Your task to perform on an android device: choose inbox layout in the gmail app Image 0: 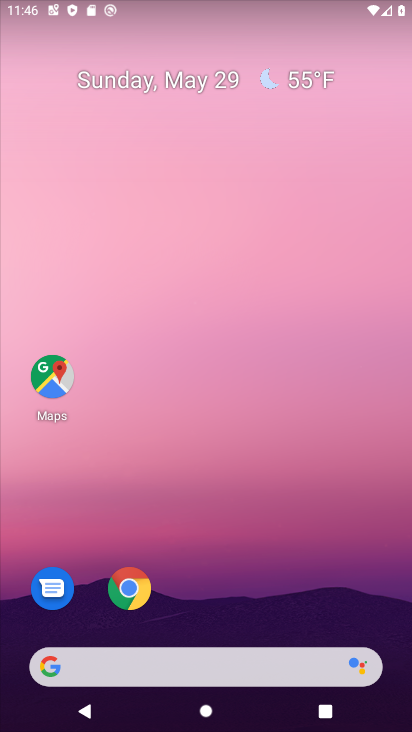
Step 0: drag from (291, 592) to (330, 0)
Your task to perform on an android device: choose inbox layout in the gmail app Image 1: 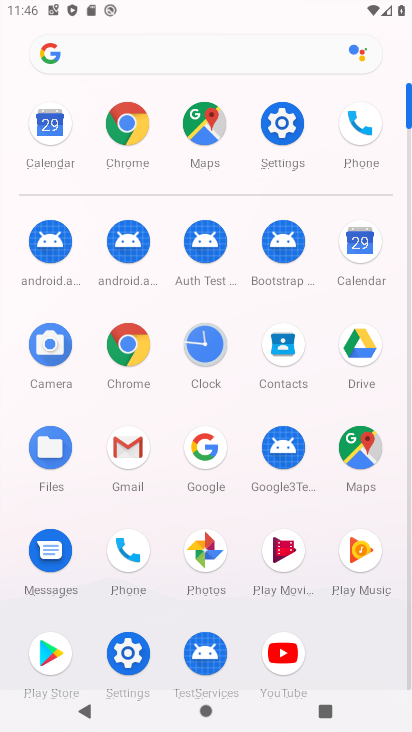
Step 1: click (130, 453)
Your task to perform on an android device: choose inbox layout in the gmail app Image 2: 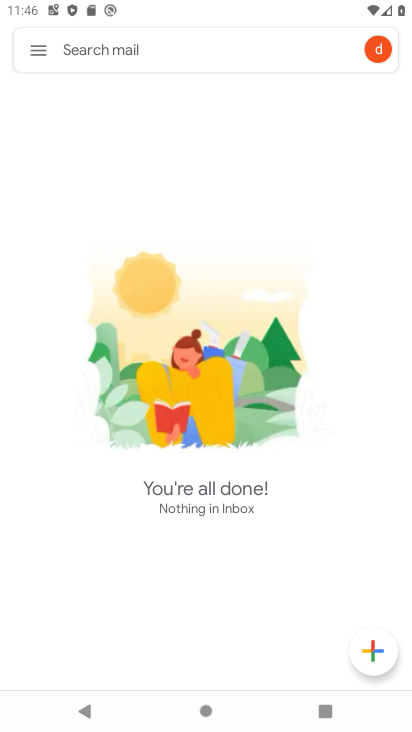
Step 2: click (16, 51)
Your task to perform on an android device: choose inbox layout in the gmail app Image 3: 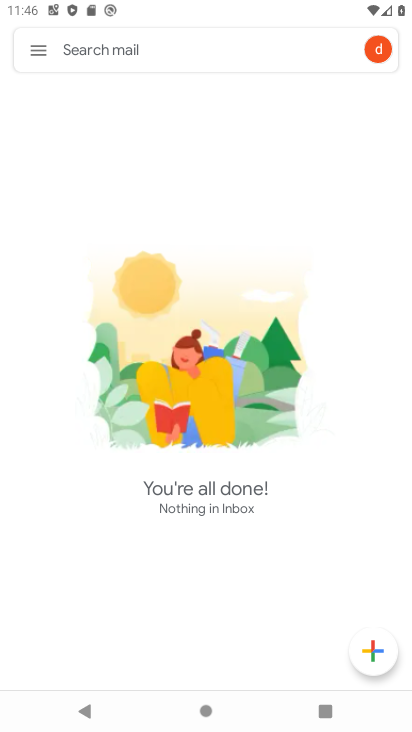
Step 3: click (16, 50)
Your task to perform on an android device: choose inbox layout in the gmail app Image 4: 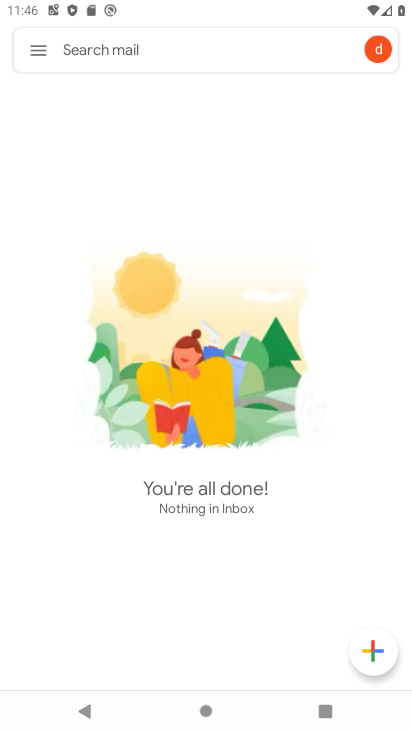
Step 4: click (32, 55)
Your task to perform on an android device: choose inbox layout in the gmail app Image 5: 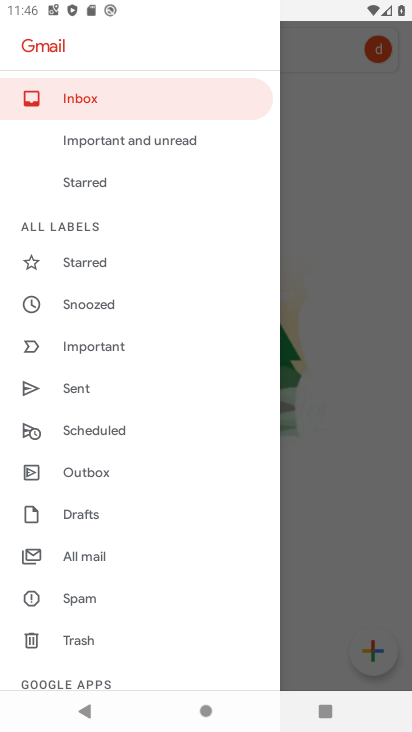
Step 5: drag from (123, 587) to (168, 183)
Your task to perform on an android device: choose inbox layout in the gmail app Image 6: 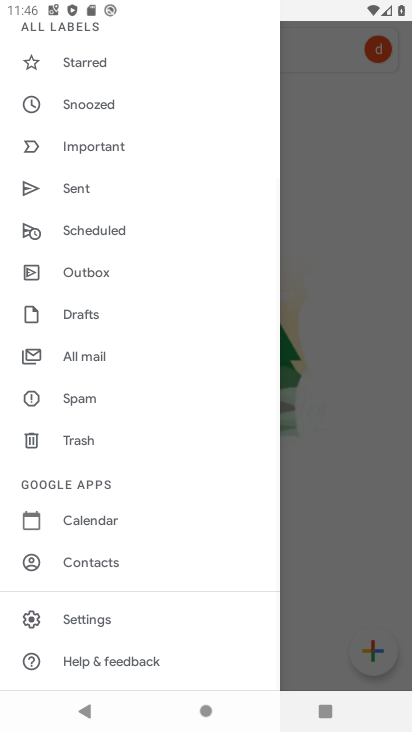
Step 6: click (85, 610)
Your task to perform on an android device: choose inbox layout in the gmail app Image 7: 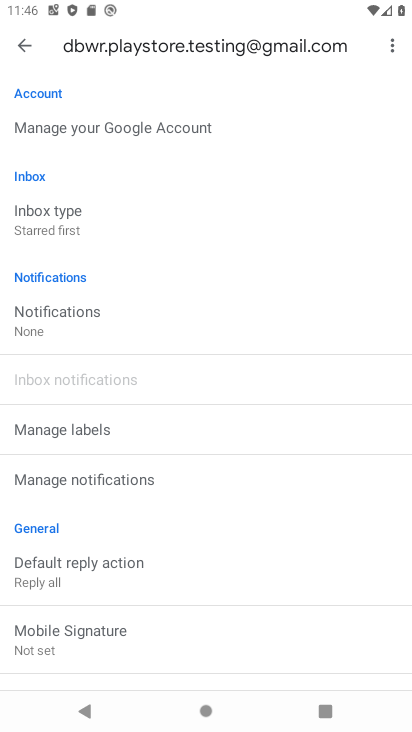
Step 7: click (83, 224)
Your task to perform on an android device: choose inbox layout in the gmail app Image 8: 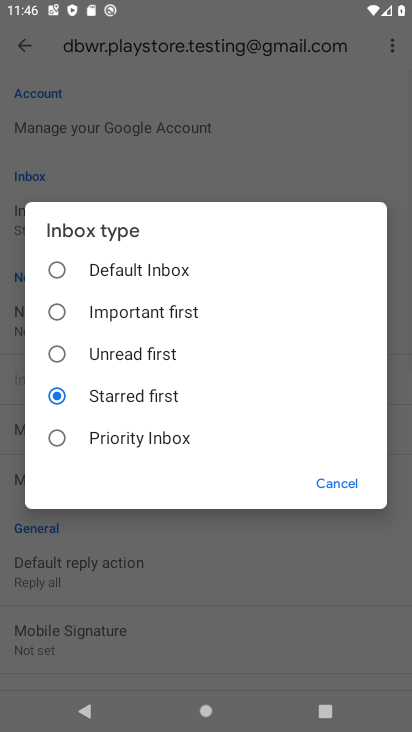
Step 8: click (83, 352)
Your task to perform on an android device: choose inbox layout in the gmail app Image 9: 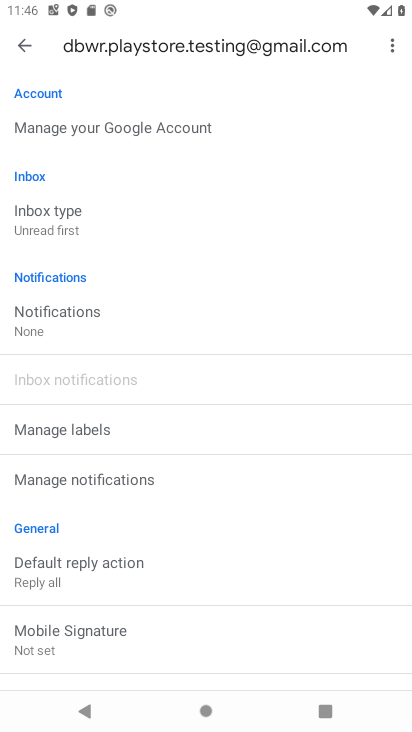
Step 9: task complete